Your task to perform on an android device: Open Chrome and go to settings Image 0: 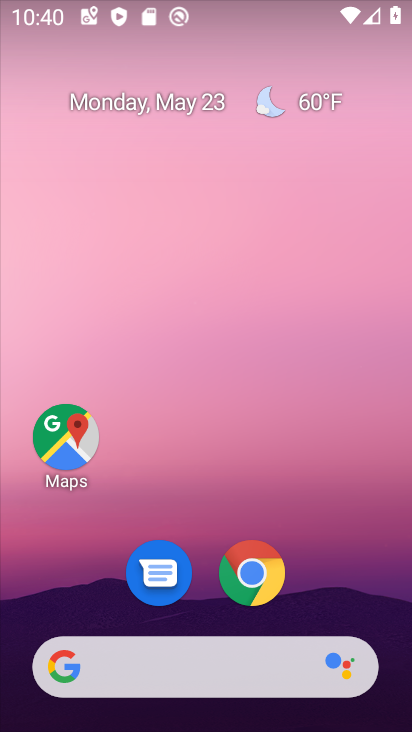
Step 0: drag from (335, 561) to (272, 10)
Your task to perform on an android device: Open Chrome and go to settings Image 1: 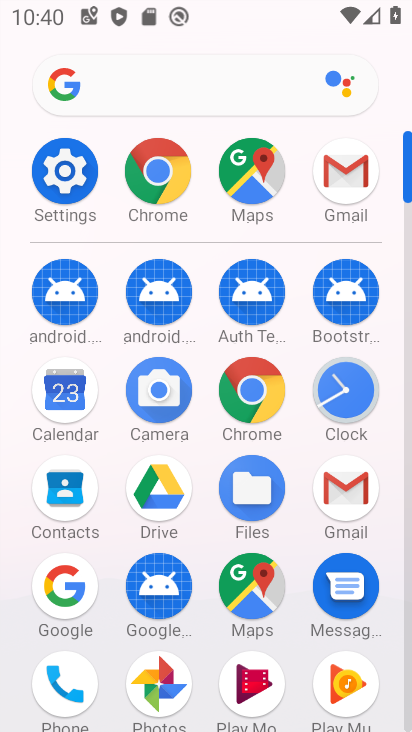
Step 1: drag from (16, 557) to (18, 175)
Your task to perform on an android device: Open Chrome and go to settings Image 2: 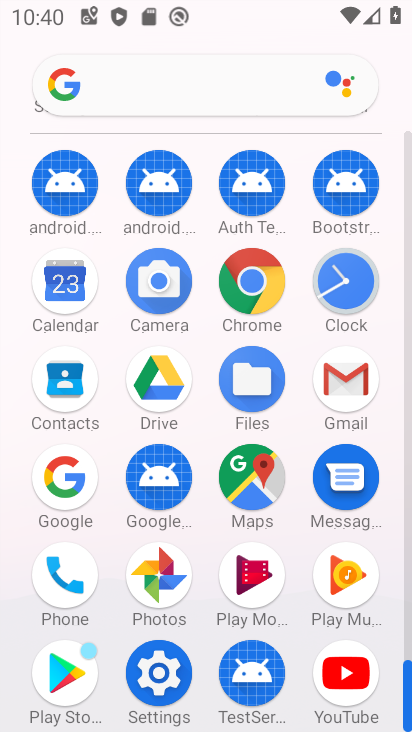
Step 2: click (246, 281)
Your task to perform on an android device: Open Chrome and go to settings Image 3: 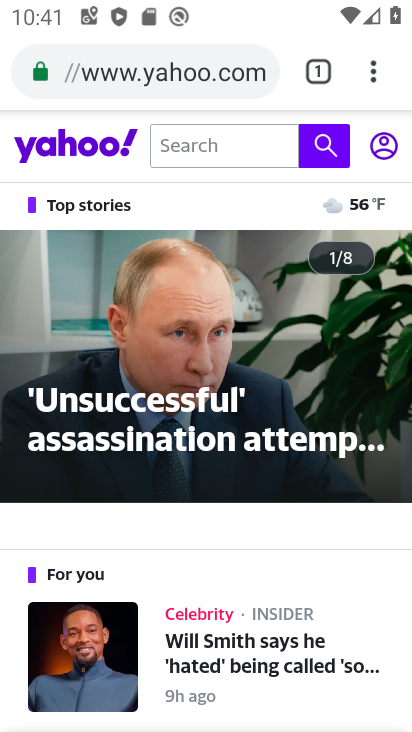
Step 3: task complete